Your task to perform on an android device: turn on priority inbox in the gmail app Image 0: 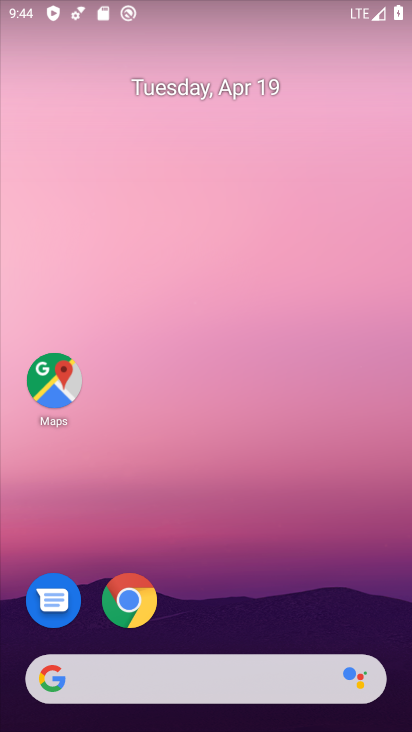
Step 0: drag from (265, 571) to (214, 161)
Your task to perform on an android device: turn on priority inbox in the gmail app Image 1: 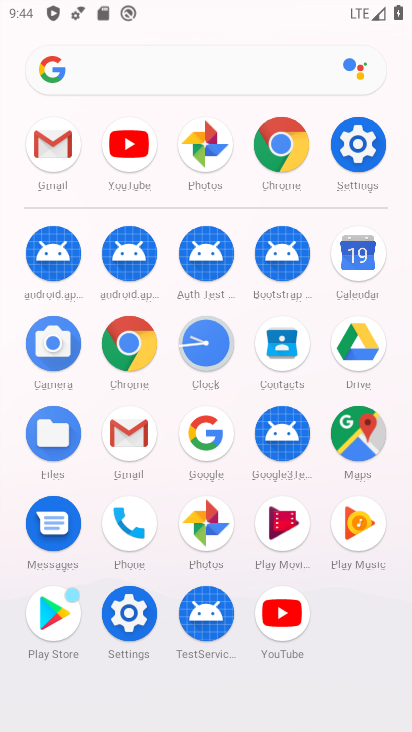
Step 1: click (44, 146)
Your task to perform on an android device: turn on priority inbox in the gmail app Image 2: 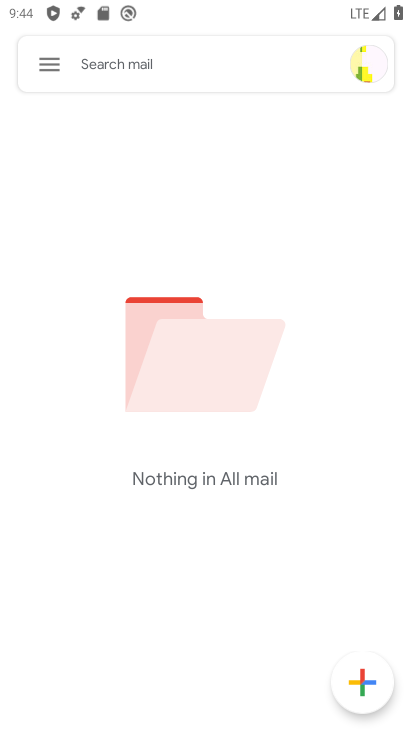
Step 2: click (53, 72)
Your task to perform on an android device: turn on priority inbox in the gmail app Image 3: 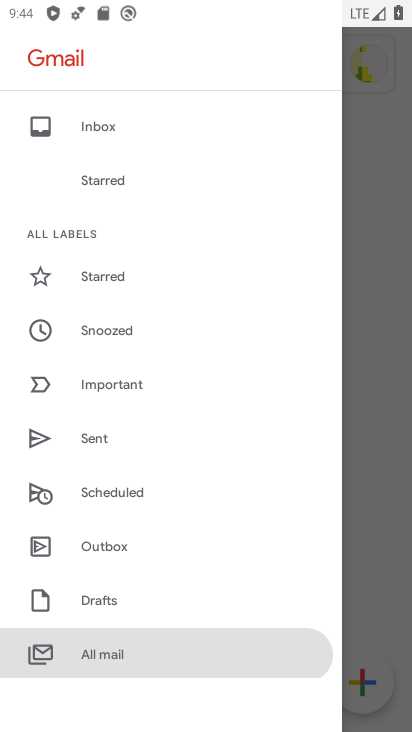
Step 3: drag from (247, 635) to (232, 251)
Your task to perform on an android device: turn on priority inbox in the gmail app Image 4: 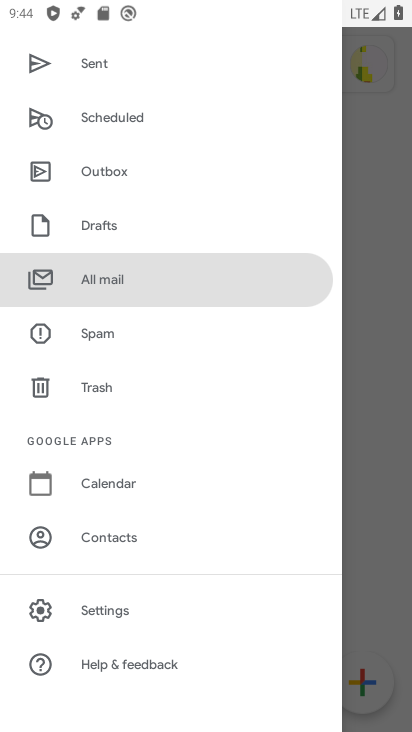
Step 4: click (256, 603)
Your task to perform on an android device: turn on priority inbox in the gmail app Image 5: 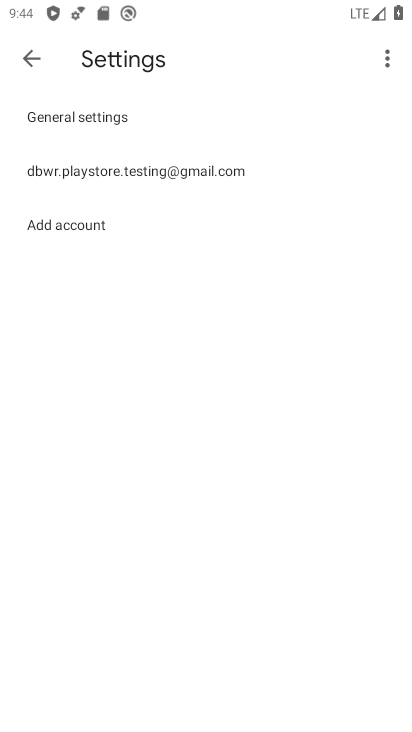
Step 5: click (241, 172)
Your task to perform on an android device: turn on priority inbox in the gmail app Image 6: 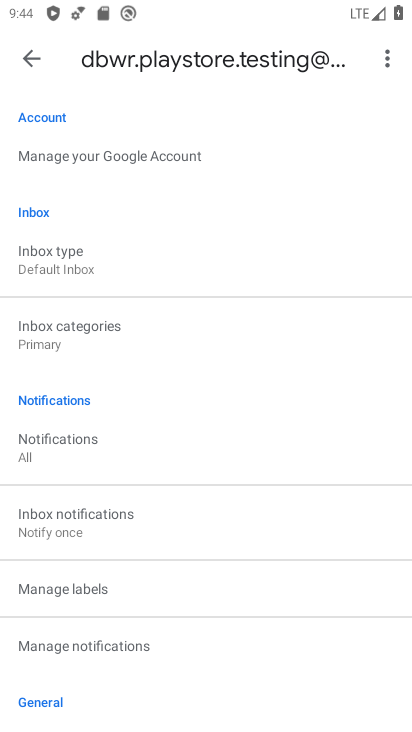
Step 6: click (213, 269)
Your task to perform on an android device: turn on priority inbox in the gmail app Image 7: 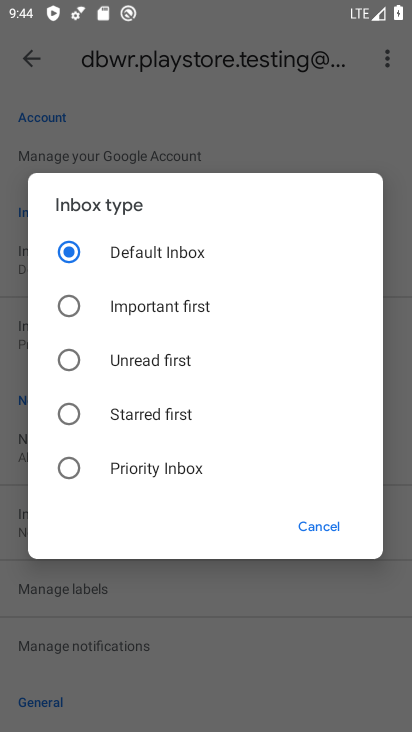
Step 7: click (188, 470)
Your task to perform on an android device: turn on priority inbox in the gmail app Image 8: 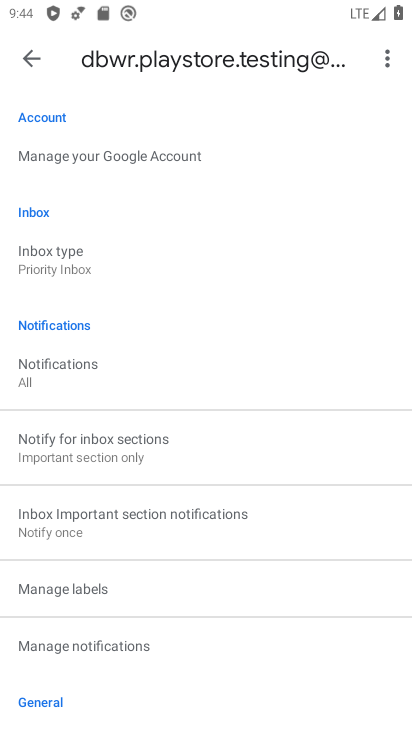
Step 8: task complete